Your task to perform on an android device: change alarm snooze length Image 0: 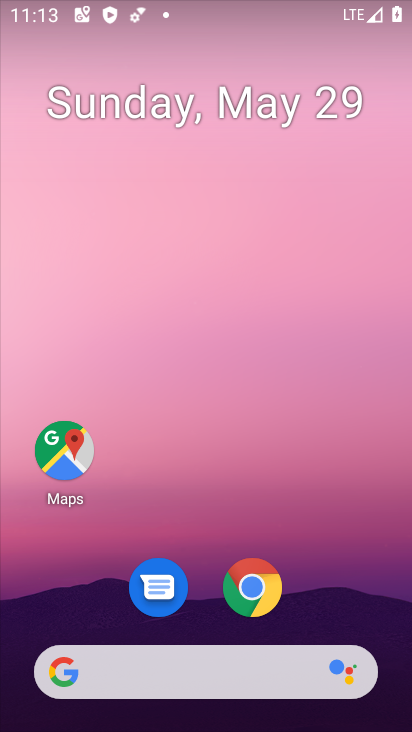
Step 0: drag from (363, 541) to (275, 184)
Your task to perform on an android device: change alarm snooze length Image 1: 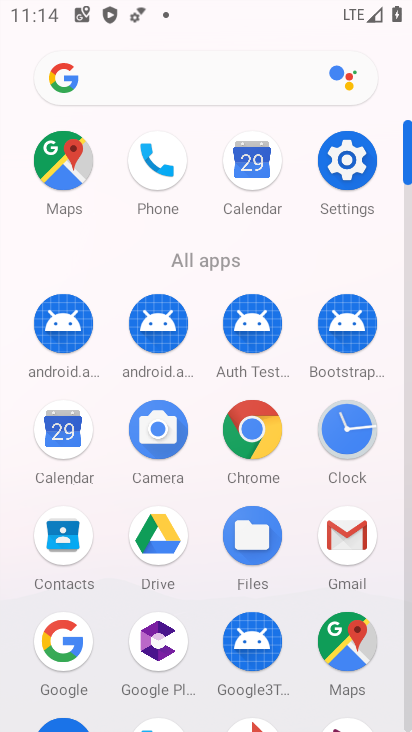
Step 1: click (346, 420)
Your task to perform on an android device: change alarm snooze length Image 2: 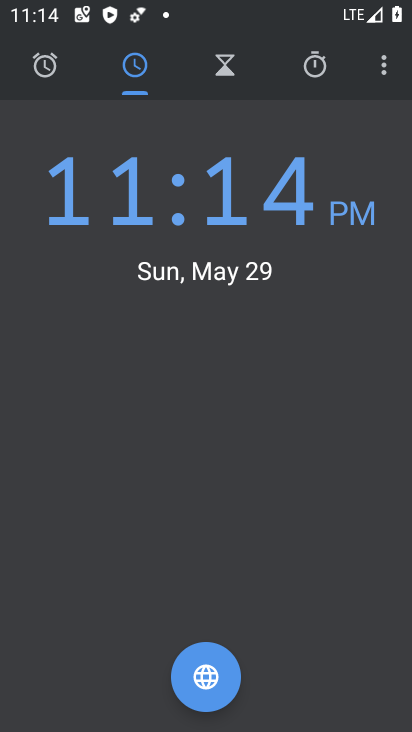
Step 2: click (380, 67)
Your task to perform on an android device: change alarm snooze length Image 3: 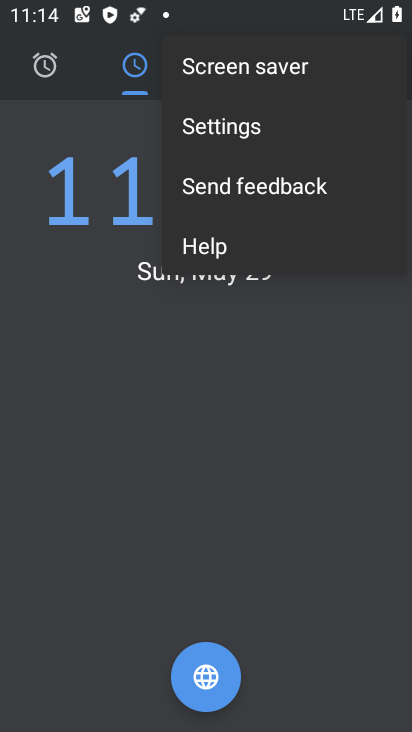
Step 3: click (222, 130)
Your task to perform on an android device: change alarm snooze length Image 4: 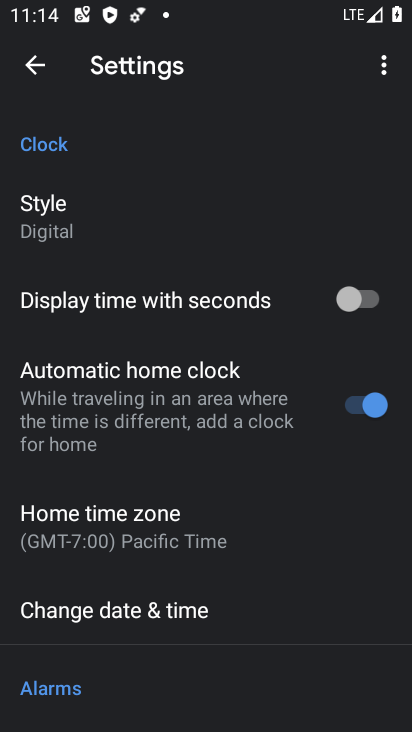
Step 4: drag from (218, 551) to (255, 149)
Your task to perform on an android device: change alarm snooze length Image 5: 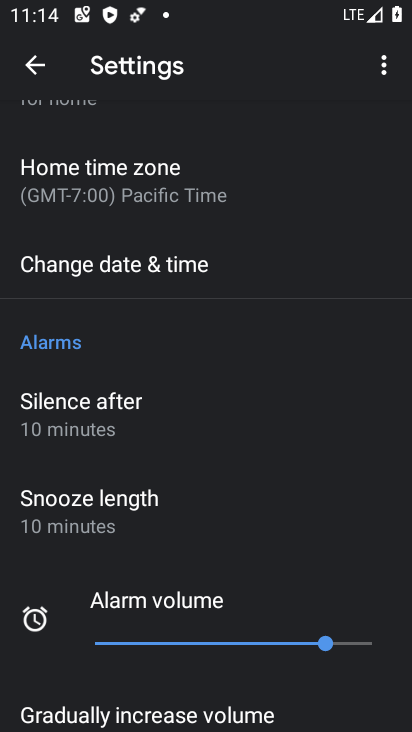
Step 5: click (125, 508)
Your task to perform on an android device: change alarm snooze length Image 6: 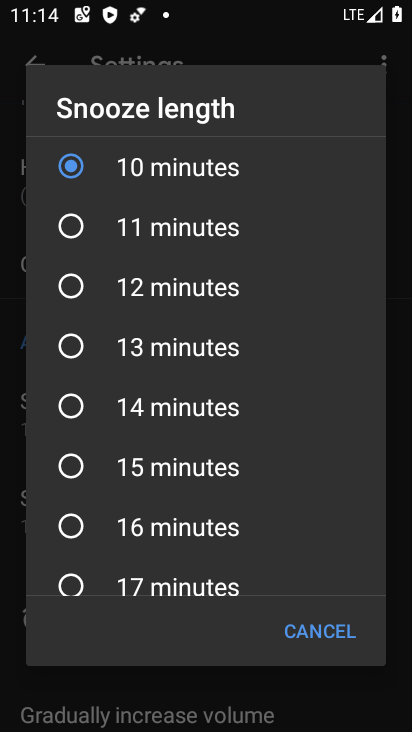
Step 6: click (160, 219)
Your task to perform on an android device: change alarm snooze length Image 7: 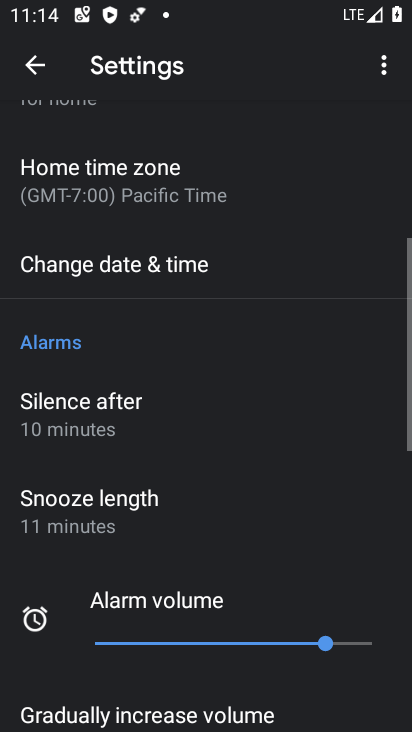
Step 7: task complete